Your task to perform on an android device: Search for Italian restaurants on Maps Image 0: 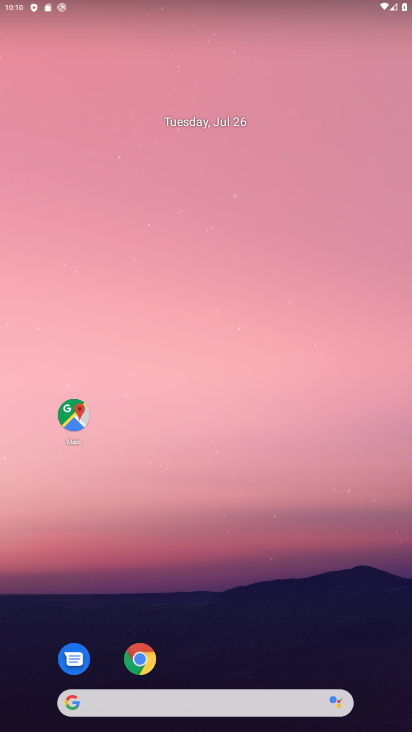
Step 0: click (78, 402)
Your task to perform on an android device: Search for Italian restaurants on Maps Image 1: 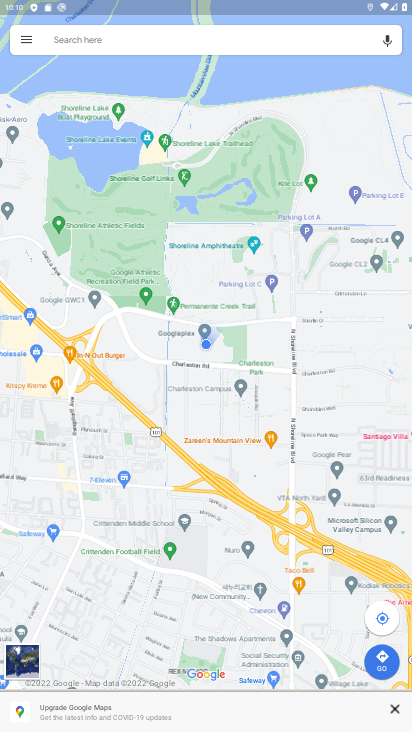
Step 1: click (171, 35)
Your task to perform on an android device: Search for Italian restaurants on Maps Image 2: 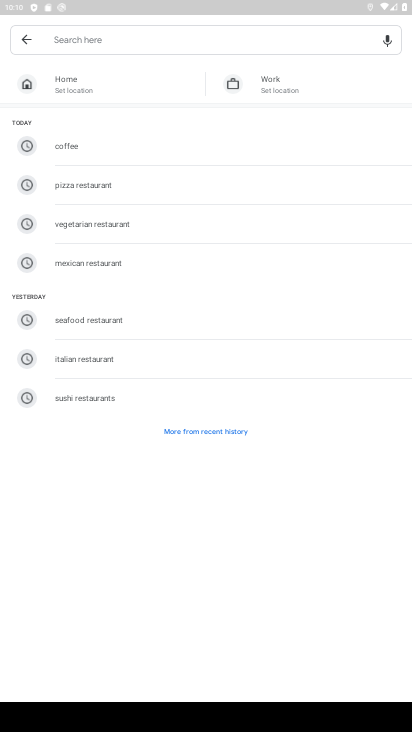
Step 2: type "Italian restaurants"
Your task to perform on an android device: Search for Italian restaurants on Maps Image 3: 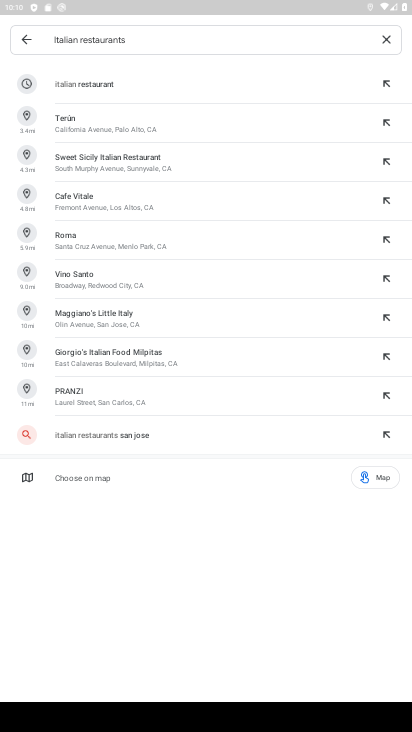
Step 3: click (106, 78)
Your task to perform on an android device: Search for Italian restaurants on Maps Image 4: 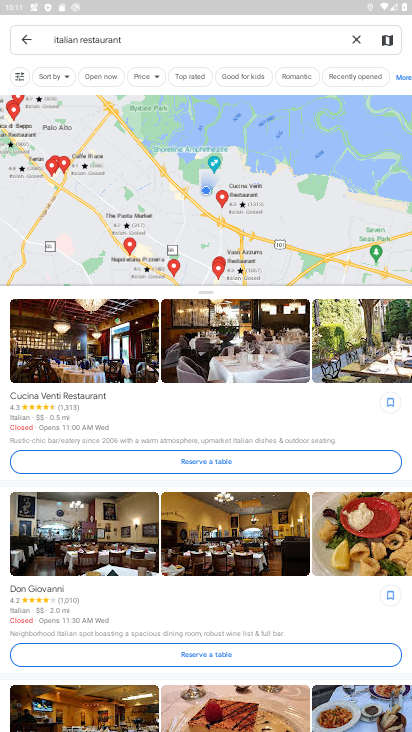
Step 4: task complete